Your task to perform on an android device: What time is it in Moscow? Image 0: 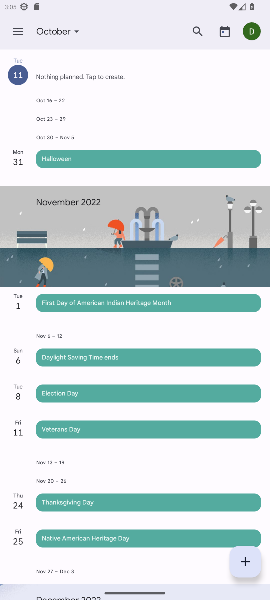
Step 0: press home button
Your task to perform on an android device: What time is it in Moscow? Image 1: 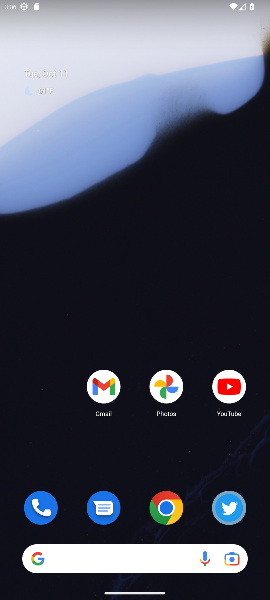
Step 1: click (169, 511)
Your task to perform on an android device: What time is it in Moscow? Image 2: 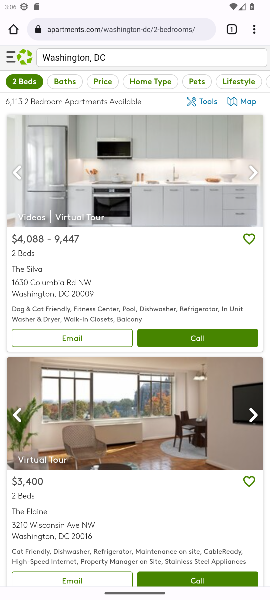
Step 2: click (163, 24)
Your task to perform on an android device: What time is it in Moscow? Image 3: 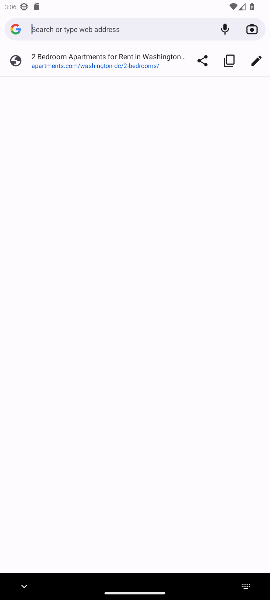
Step 3: type "What time is it in Moscow"
Your task to perform on an android device: What time is it in Moscow? Image 4: 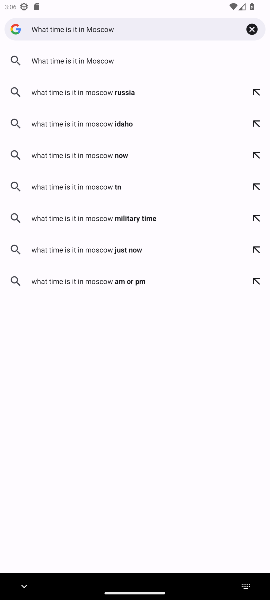
Step 4: click (90, 61)
Your task to perform on an android device: What time is it in Moscow? Image 5: 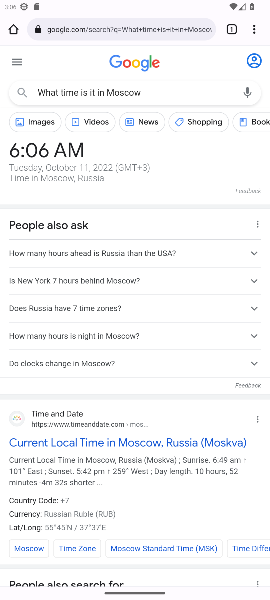
Step 5: task complete